Your task to perform on an android device: check google app version Image 0: 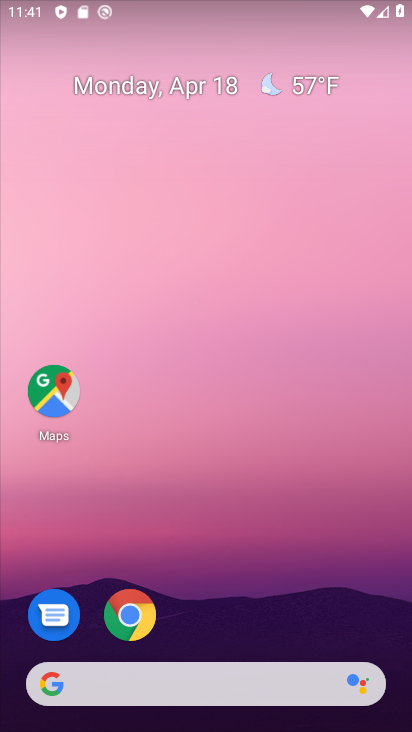
Step 0: drag from (203, 484) to (203, 236)
Your task to perform on an android device: check google app version Image 1: 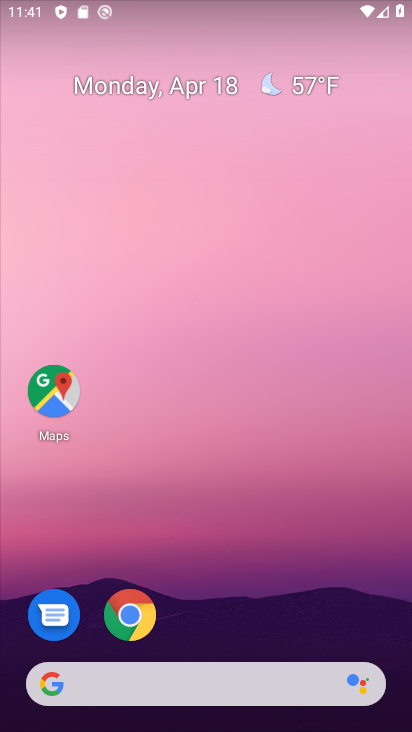
Step 1: drag from (212, 529) to (212, 130)
Your task to perform on an android device: check google app version Image 2: 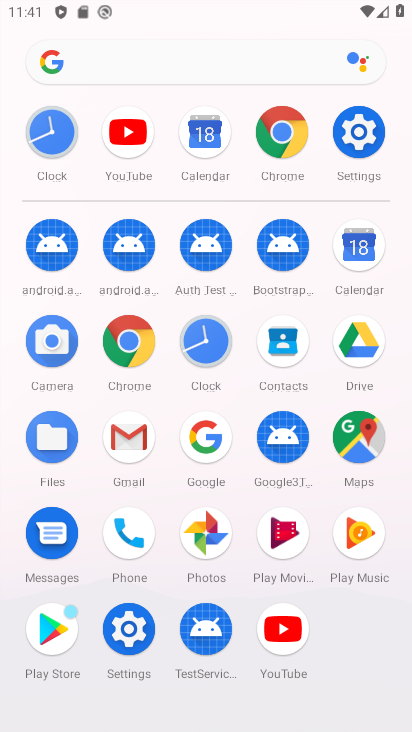
Step 2: click (200, 428)
Your task to perform on an android device: check google app version Image 3: 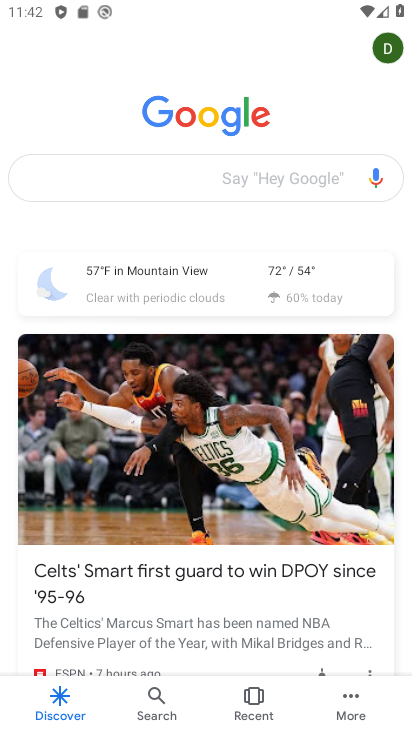
Step 3: click (349, 690)
Your task to perform on an android device: check google app version Image 4: 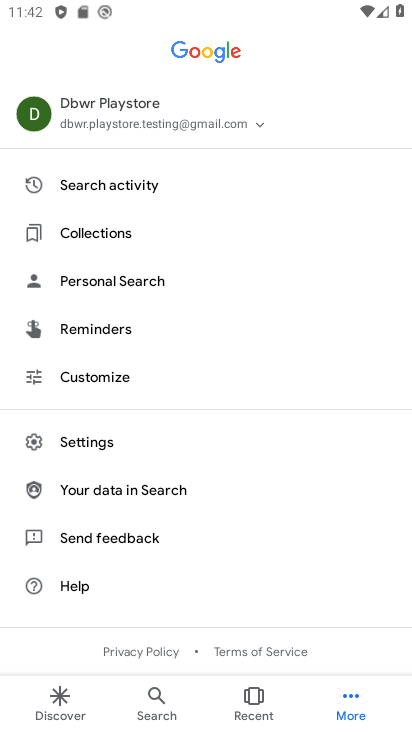
Step 4: click (75, 446)
Your task to perform on an android device: check google app version Image 5: 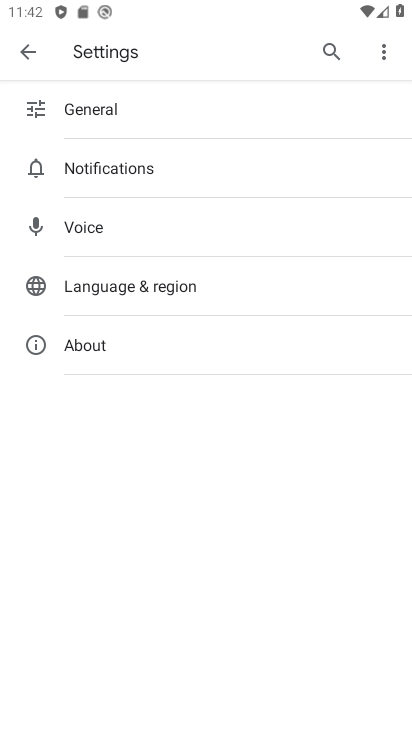
Step 5: click (90, 353)
Your task to perform on an android device: check google app version Image 6: 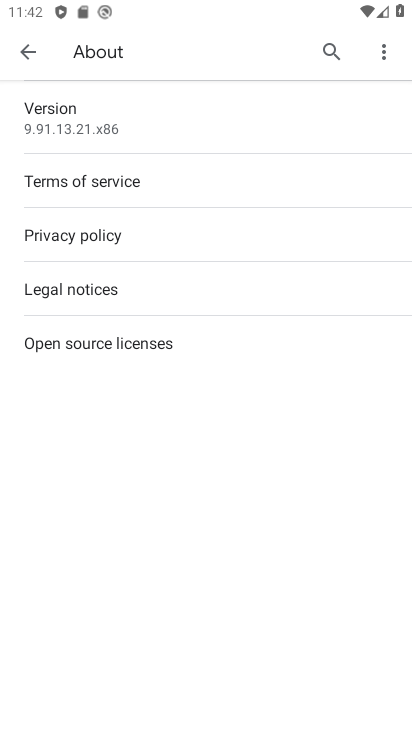
Step 6: click (113, 126)
Your task to perform on an android device: check google app version Image 7: 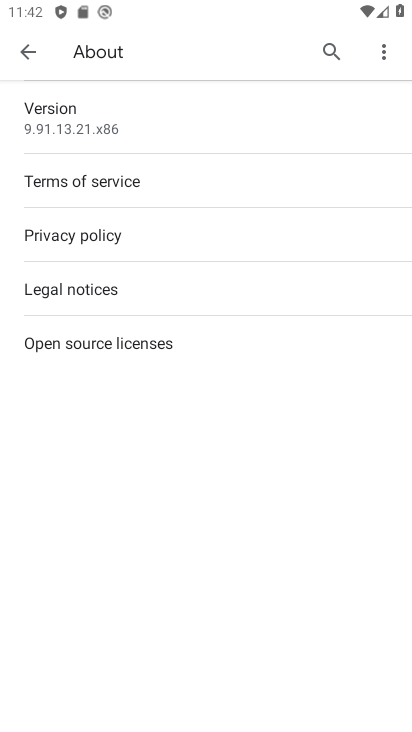
Step 7: task complete